Your task to perform on an android device: open chrome and create a bookmark for the current page Image 0: 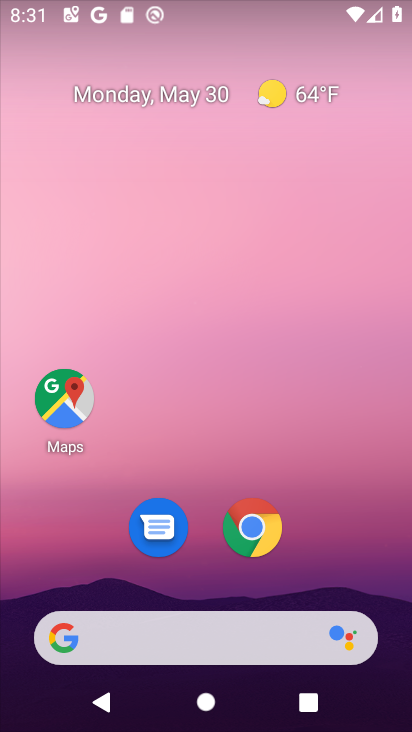
Step 0: click (259, 517)
Your task to perform on an android device: open chrome and create a bookmark for the current page Image 1: 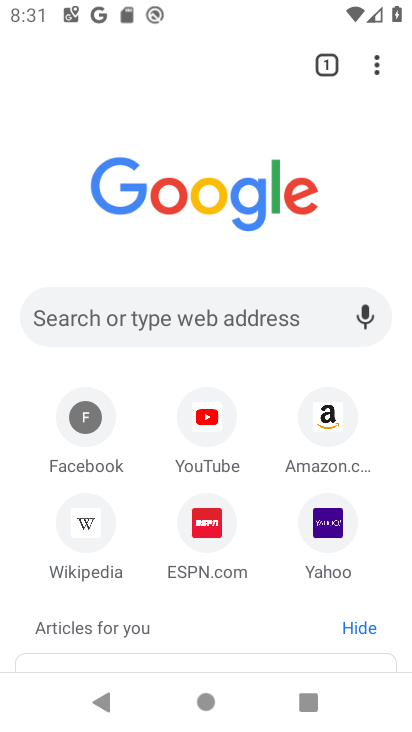
Step 1: click (364, 64)
Your task to perform on an android device: open chrome and create a bookmark for the current page Image 2: 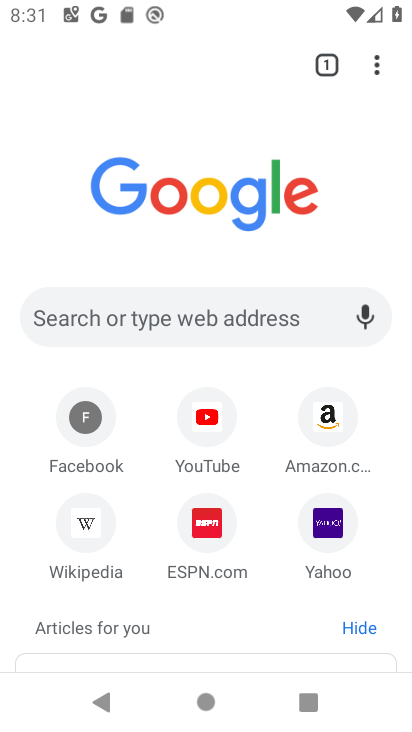
Step 2: click (356, 69)
Your task to perform on an android device: open chrome and create a bookmark for the current page Image 3: 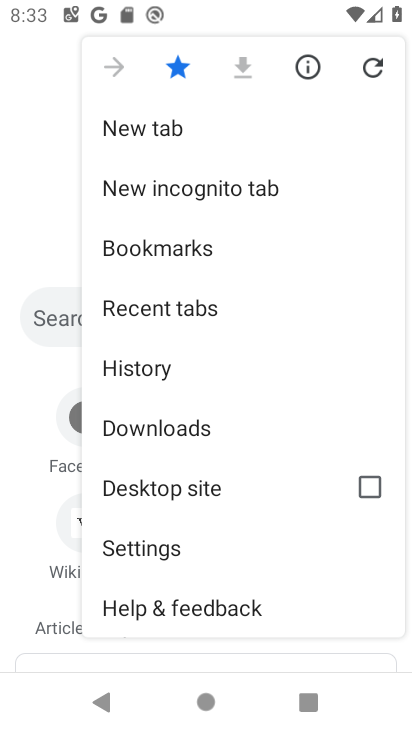
Step 3: task complete